Your task to perform on an android device: change notifications settings Image 0: 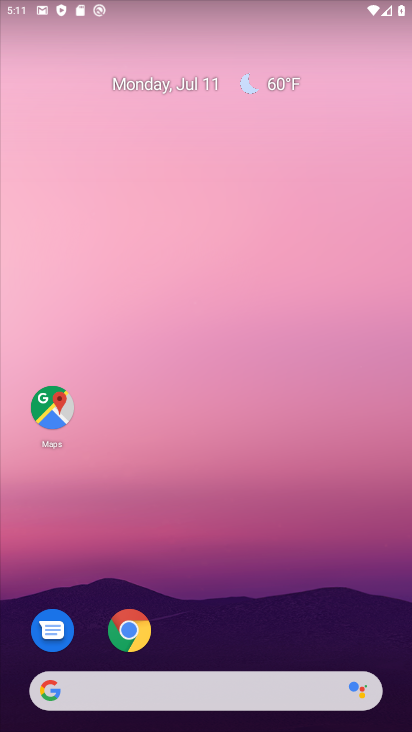
Step 0: drag from (195, 494) to (207, 10)
Your task to perform on an android device: change notifications settings Image 1: 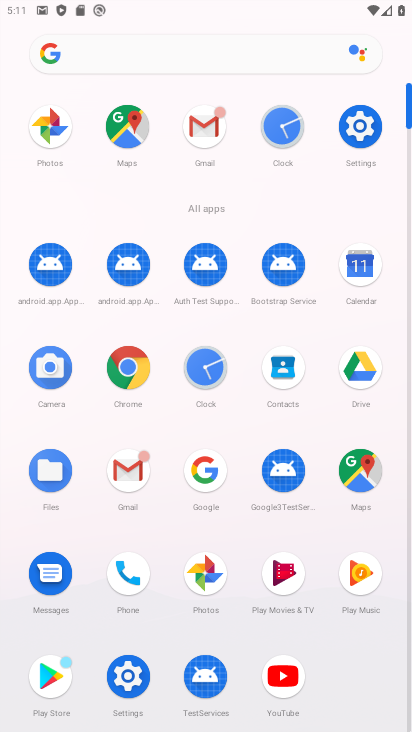
Step 1: click (362, 129)
Your task to perform on an android device: change notifications settings Image 2: 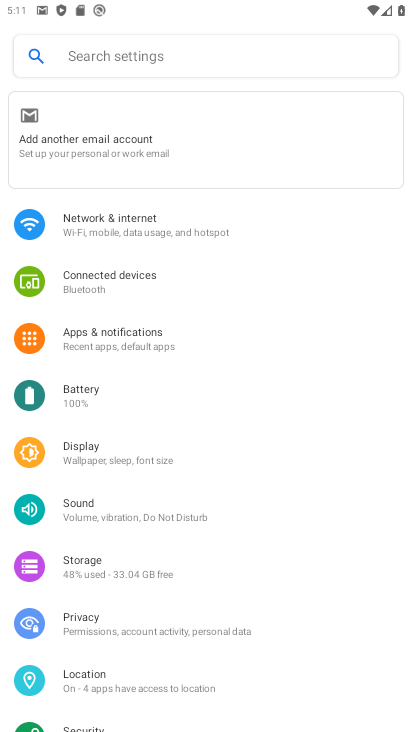
Step 2: click (57, 337)
Your task to perform on an android device: change notifications settings Image 3: 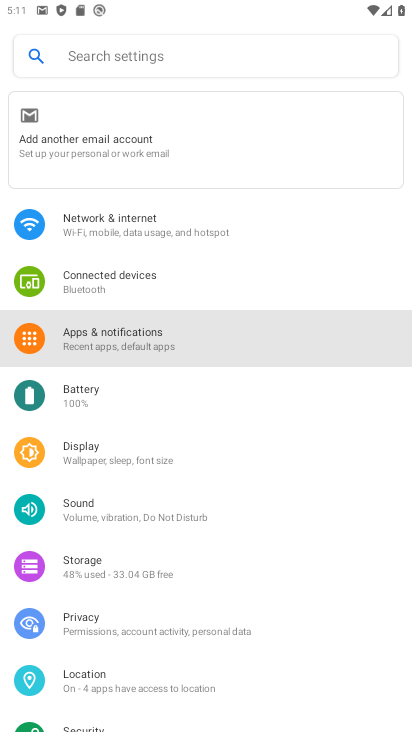
Step 3: click (84, 339)
Your task to perform on an android device: change notifications settings Image 4: 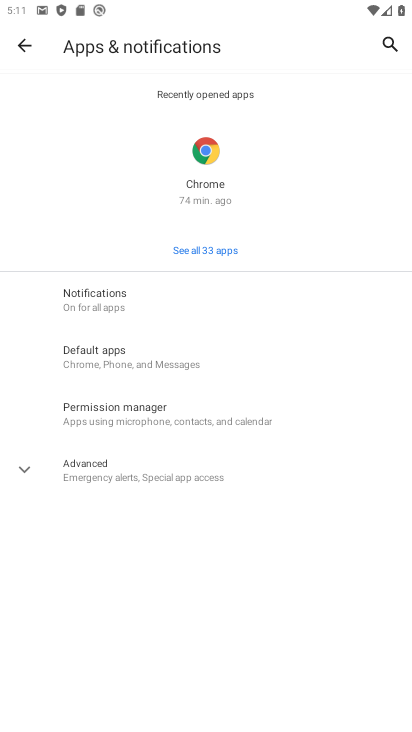
Step 4: click (87, 305)
Your task to perform on an android device: change notifications settings Image 5: 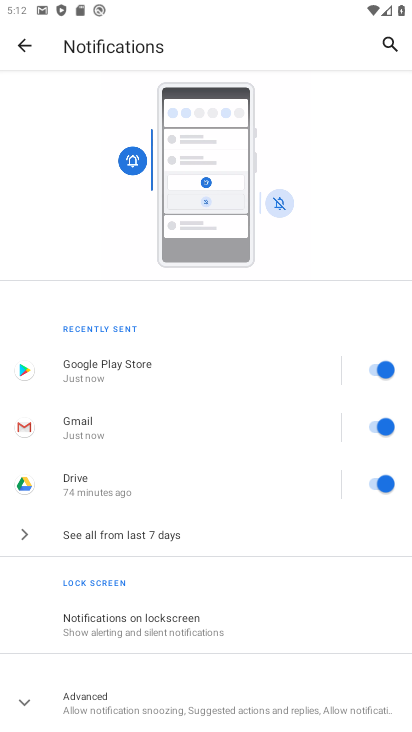
Step 5: click (89, 704)
Your task to perform on an android device: change notifications settings Image 6: 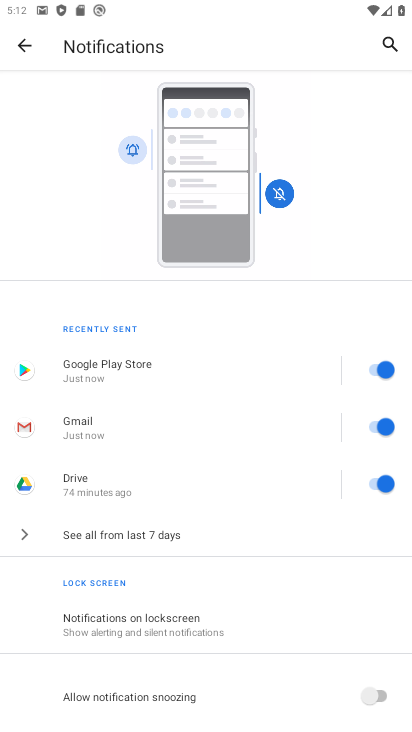
Step 6: drag from (178, 600) to (178, 354)
Your task to perform on an android device: change notifications settings Image 7: 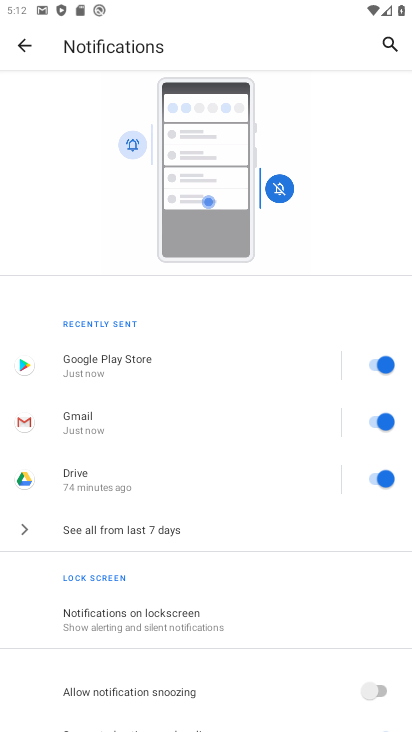
Step 7: drag from (133, 653) to (141, 359)
Your task to perform on an android device: change notifications settings Image 8: 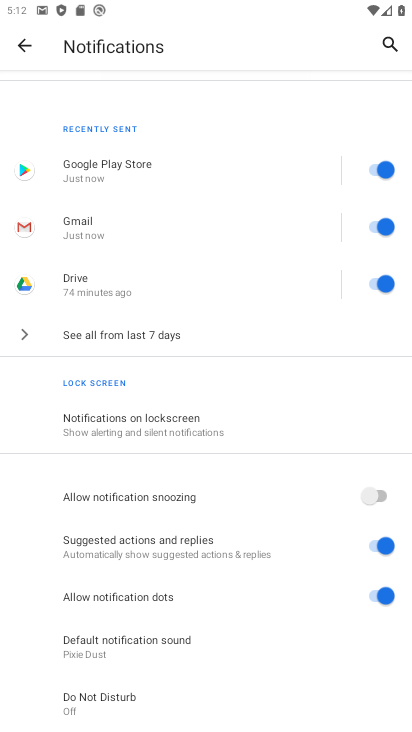
Step 8: click (201, 439)
Your task to perform on an android device: change notifications settings Image 9: 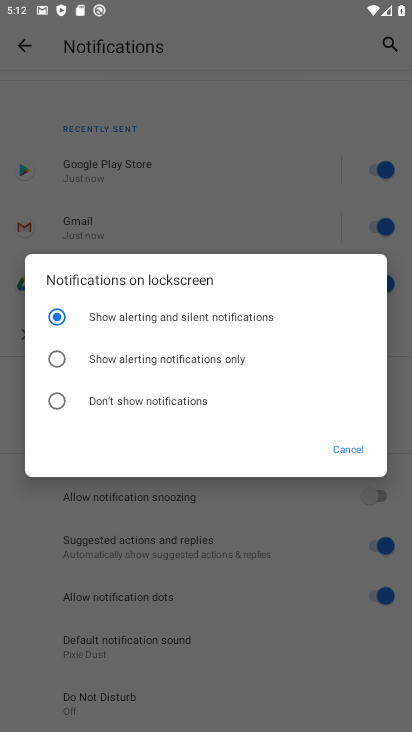
Step 9: click (60, 393)
Your task to perform on an android device: change notifications settings Image 10: 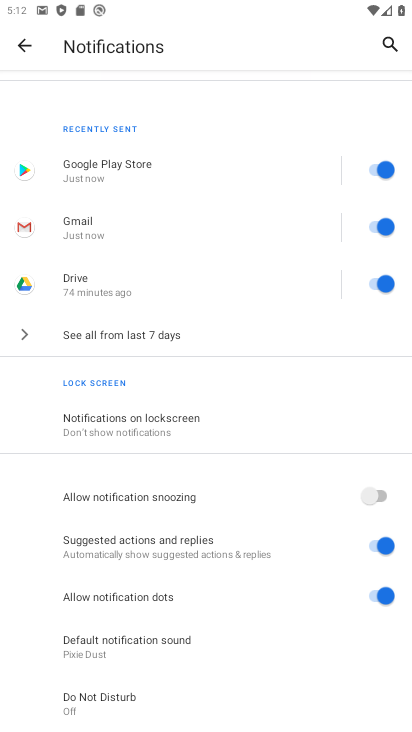
Step 10: task complete